Your task to perform on an android device: Go to calendar. Show me events next week Image 0: 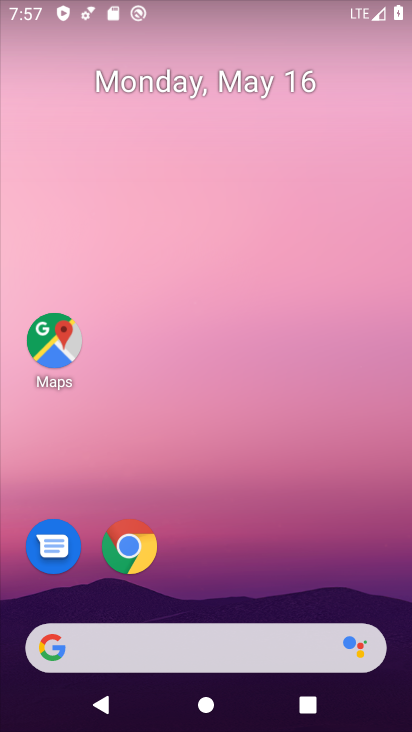
Step 0: drag from (264, 589) to (283, 39)
Your task to perform on an android device: Go to calendar. Show me events next week Image 1: 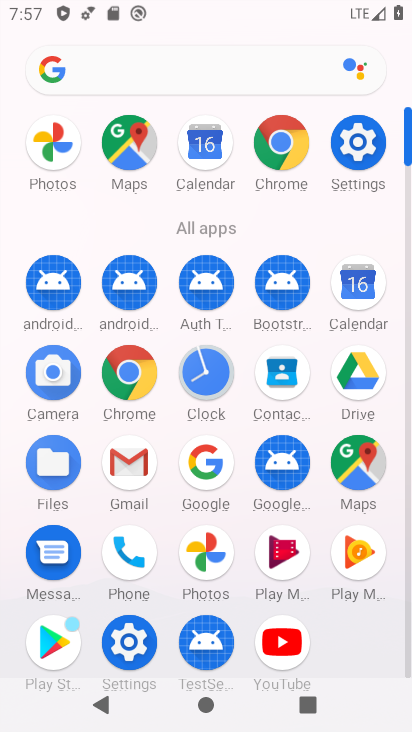
Step 1: click (350, 284)
Your task to perform on an android device: Go to calendar. Show me events next week Image 2: 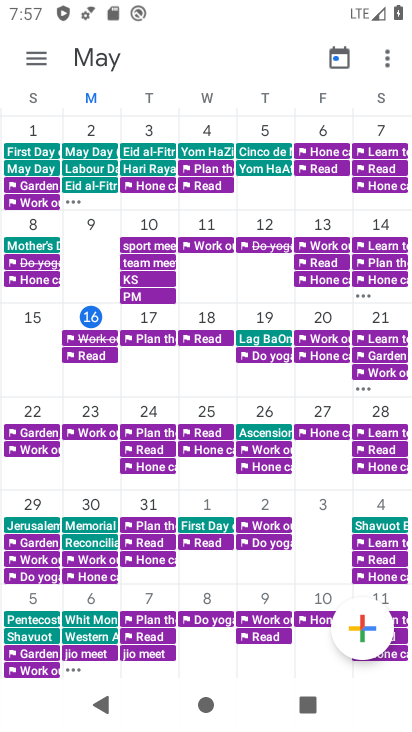
Step 2: task complete